Your task to perform on an android device: Go to CNN.com Image 0: 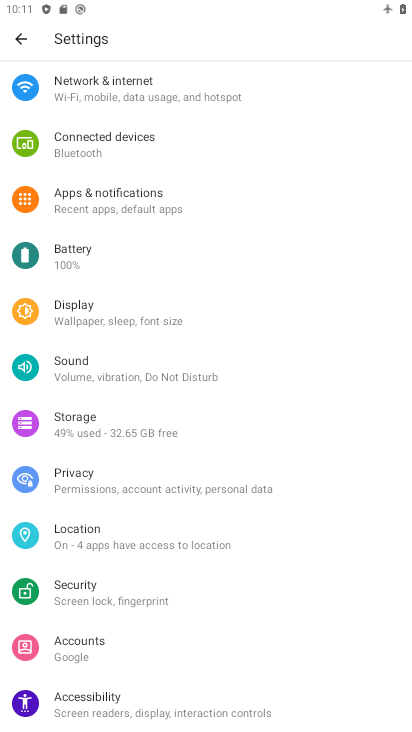
Step 0: press home button
Your task to perform on an android device: Go to CNN.com Image 1: 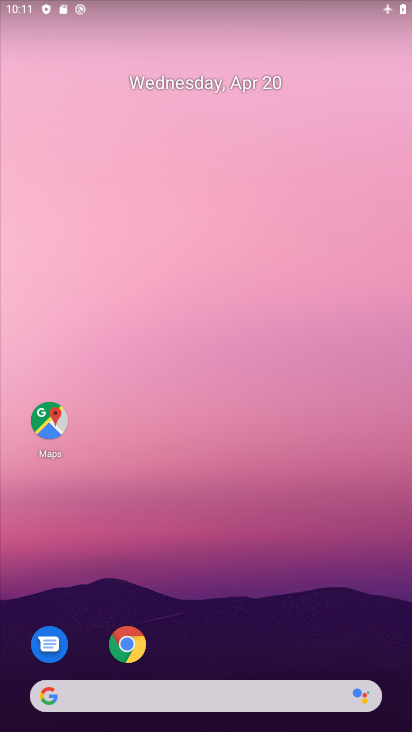
Step 1: drag from (185, 640) to (221, 87)
Your task to perform on an android device: Go to CNN.com Image 2: 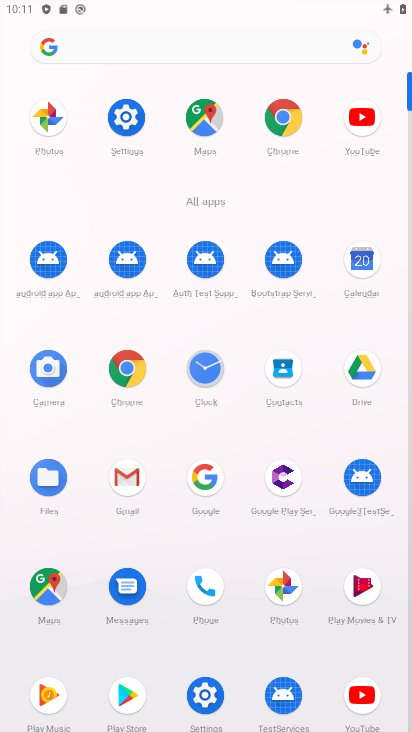
Step 2: click (287, 116)
Your task to perform on an android device: Go to CNN.com Image 3: 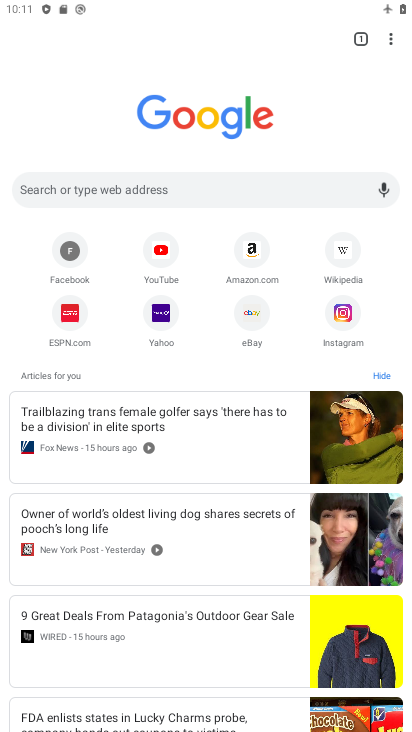
Step 3: click (136, 186)
Your task to perform on an android device: Go to CNN.com Image 4: 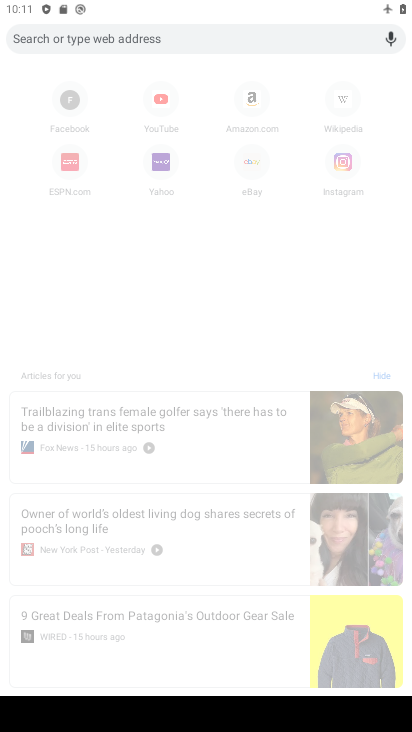
Step 4: type "CNN.com"
Your task to perform on an android device: Go to CNN.com Image 5: 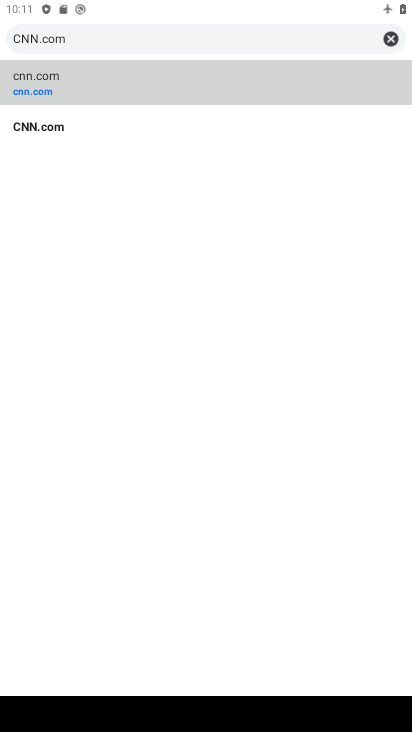
Step 5: click (99, 102)
Your task to perform on an android device: Go to CNN.com Image 6: 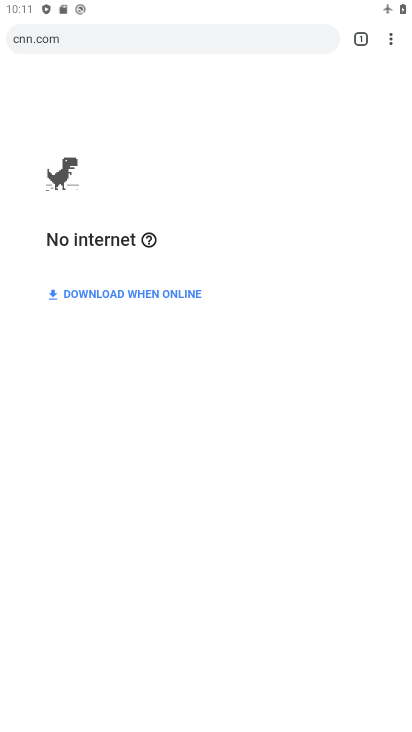
Step 6: task complete